Your task to perform on an android device: change the clock style Image 0: 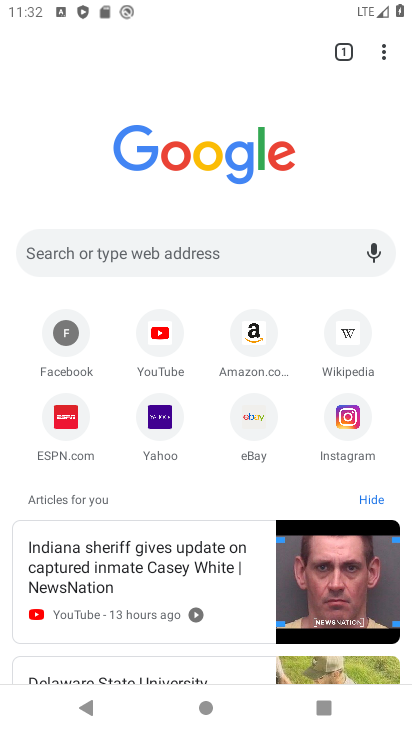
Step 0: press home button
Your task to perform on an android device: change the clock style Image 1: 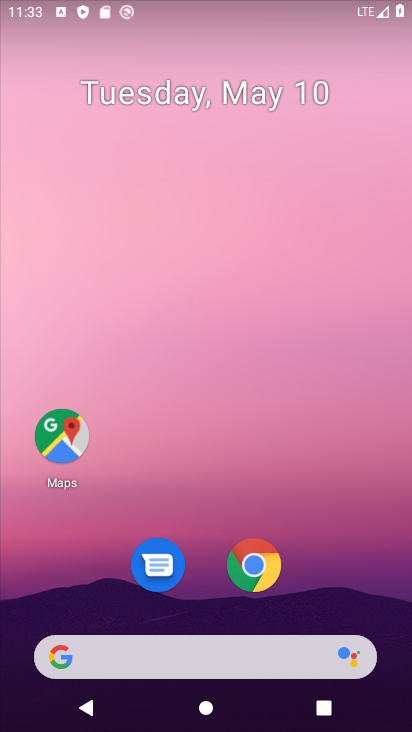
Step 1: drag from (28, 690) to (277, 176)
Your task to perform on an android device: change the clock style Image 2: 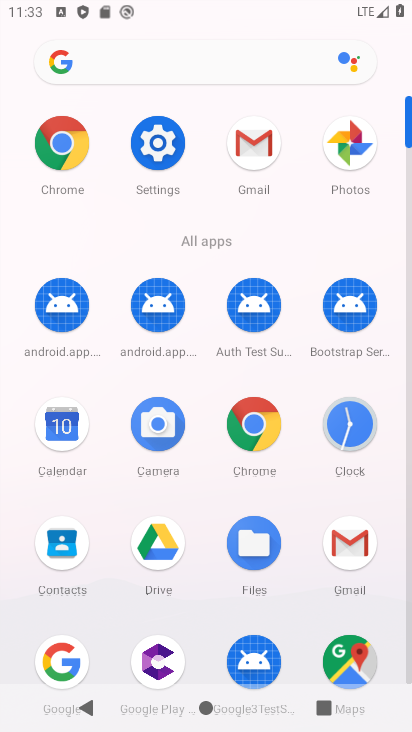
Step 2: click (347, 428)
Your task to perform on an android device: change the clock style Image 3: 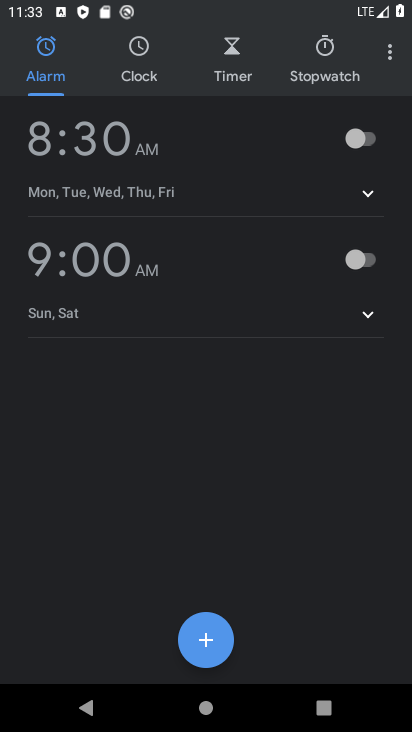
Step 3: click (387, 48)
Your task to perform on an android device: change the clock style Image 4: 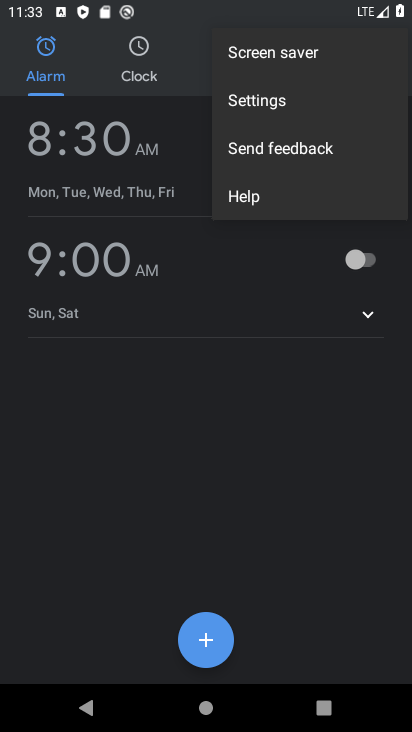
Step 4: click (323, 109)
Your task to perform on an android device: change the clock style Image 5: 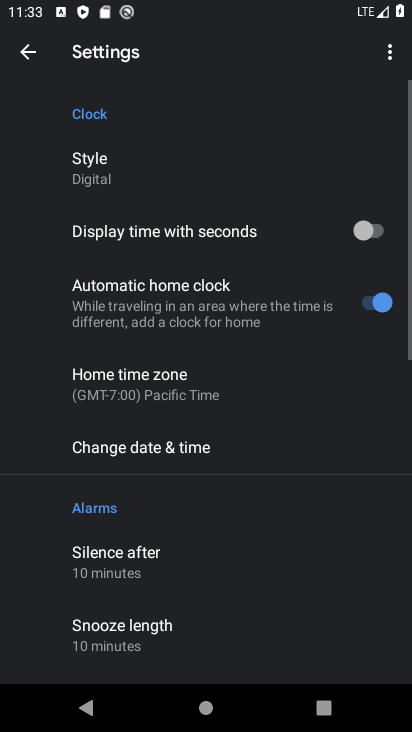
Step 5: click (140, 162)
Your task to perform on an android device: change the clock style Image 6: 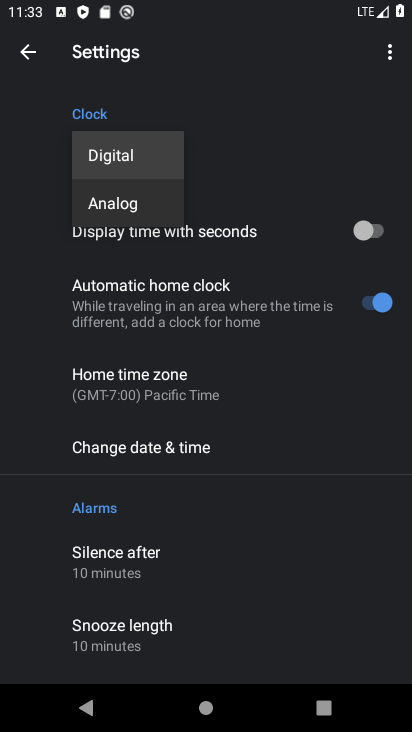
Step 6: click (106, 212)
Your task to perform on an android device: change the clock style Image 7: 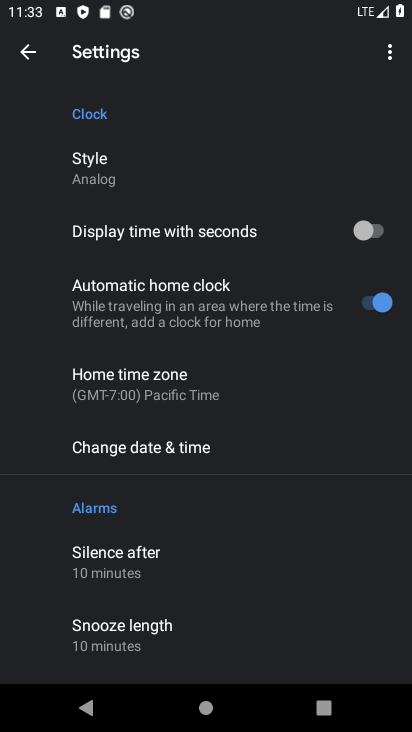
Step 7: task complete